Your task to perform on an android device: open app "Mercado Libre" (install if not already installed) Image 0: 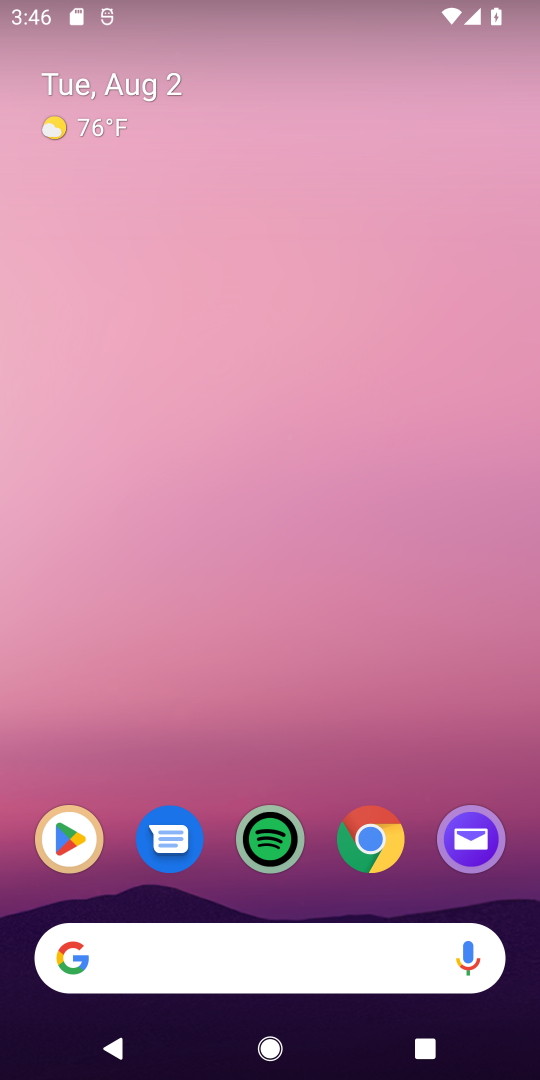
Step 0: click (83, 862)
Your task to perform on an android device: open app "Mercado Libre" (install if not already installed) Image 1: 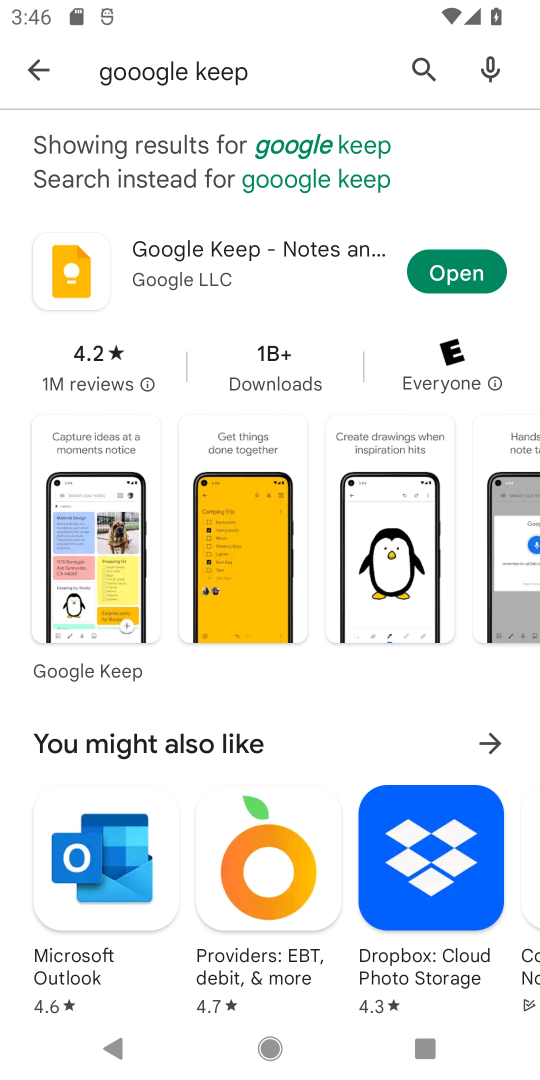
Step 1: click (418, 83)
Your task to perform on an android device: open app "Mercado Libre" (install if not already installed) Image 2: 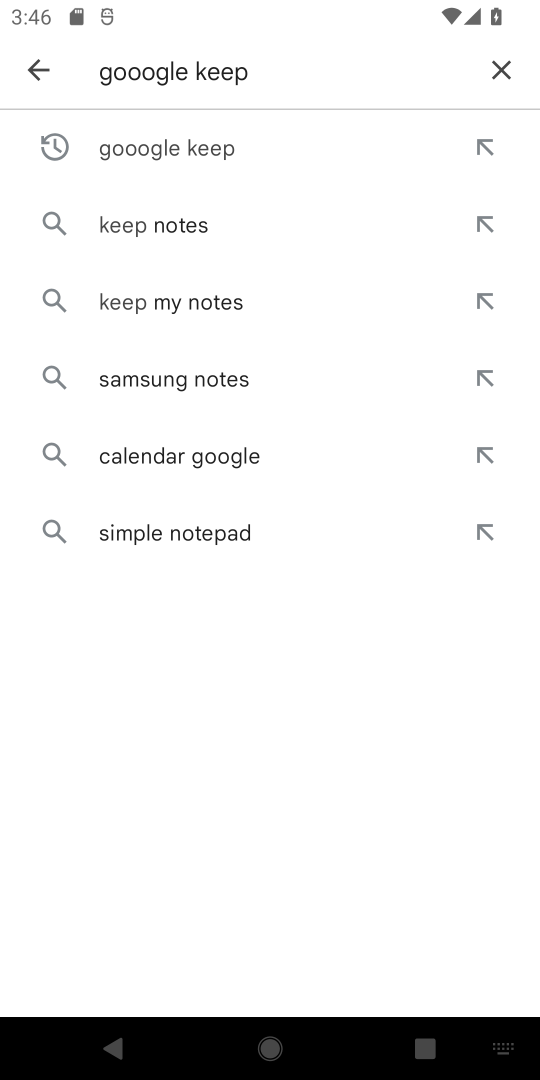
Step 2: click (478, 81)
Your task to perform on an android device: open app "Mercado Libre" (install if not already installed) Image 3: 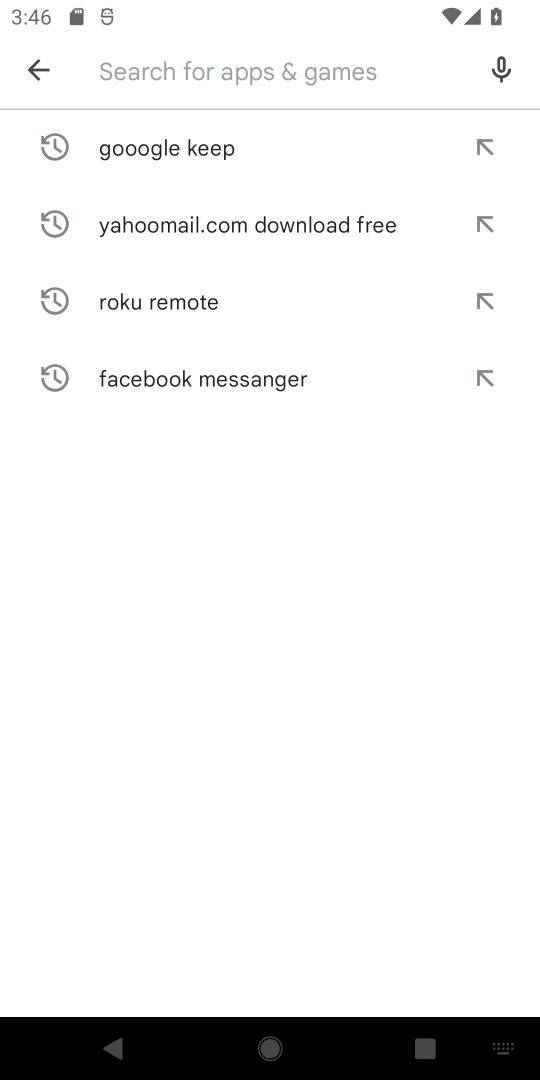
Step 3: type "mercado"
Your task to perform on an android device: open app "Mercado Libre" (install if not already installed) Image 4: 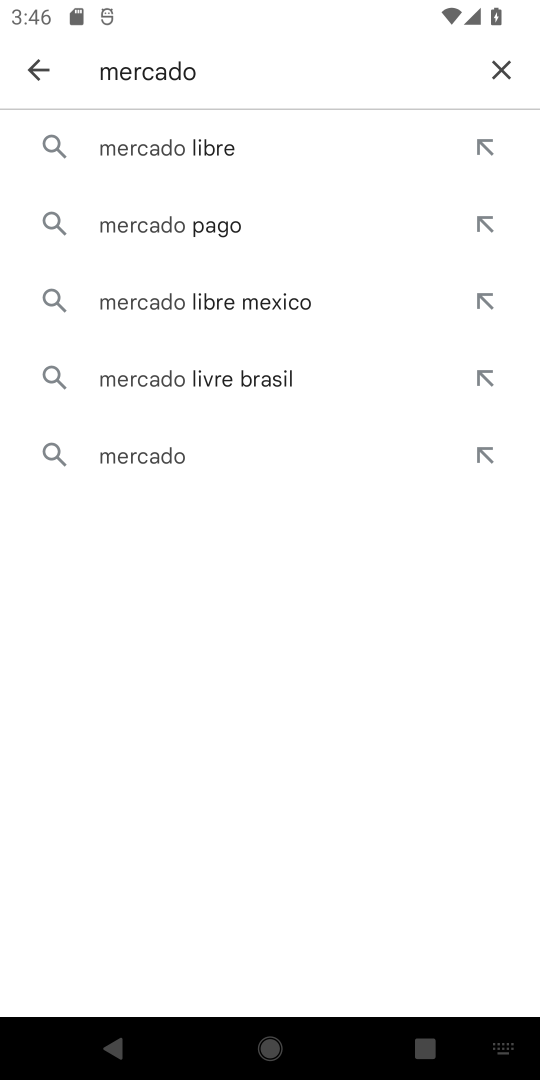
Step 4: click (381, 165)
Your task to perform on an android device: open app "Mercado Libre" (install if not already installed) Image 5: 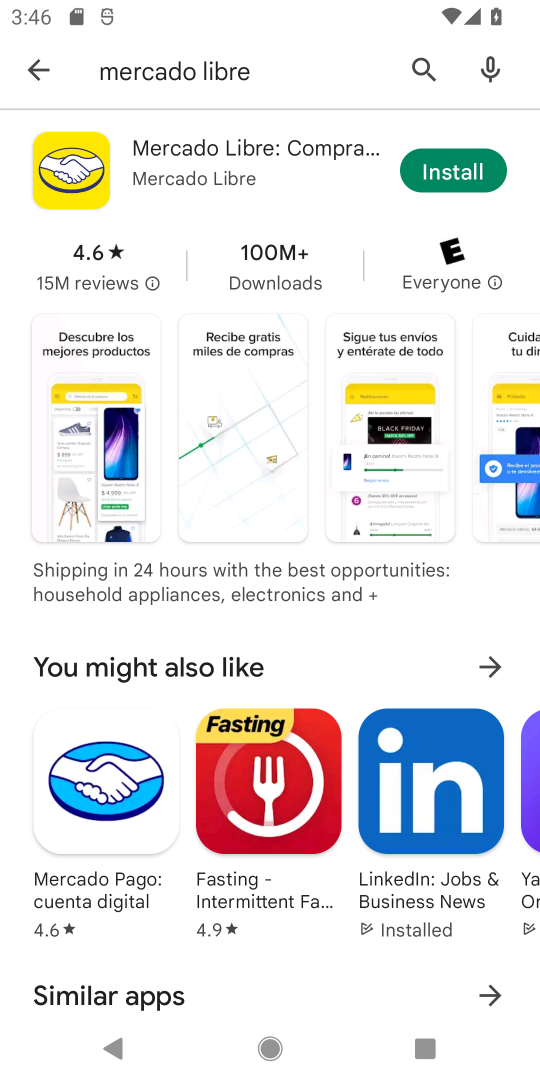
Step 5: click (452, 174)
Your task to perform on an android device: open app "Mercado Libre" (install if not already installed) Image 6: 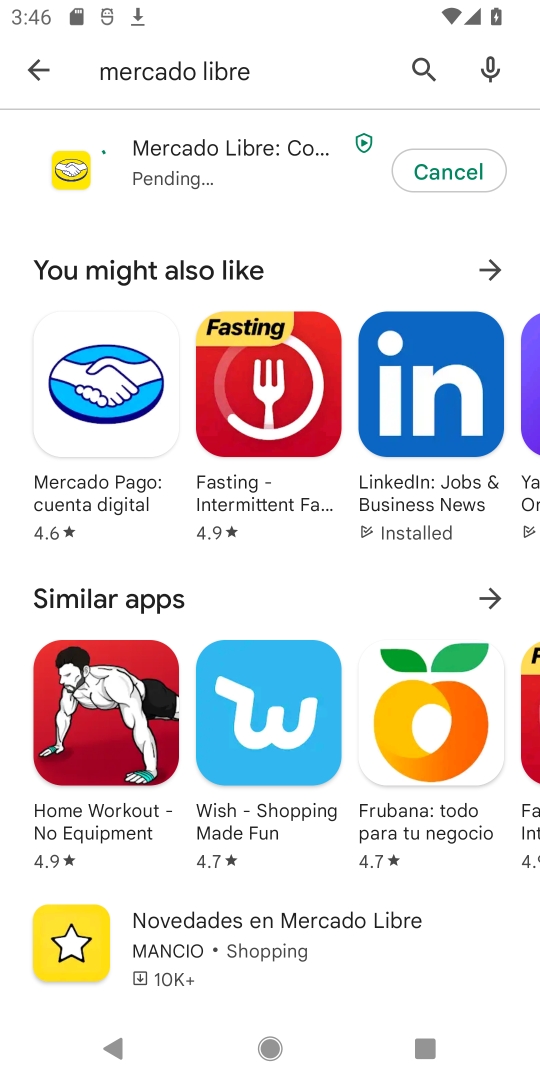
Step 6: task complete